Your task to perform on an android device: What is the capital of Germany? Image 0: 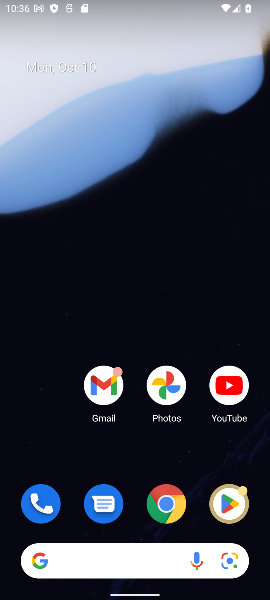
Step 0: click (165, 504)
Your task to perform on an android device: What is the capital of Germany? Image 1: 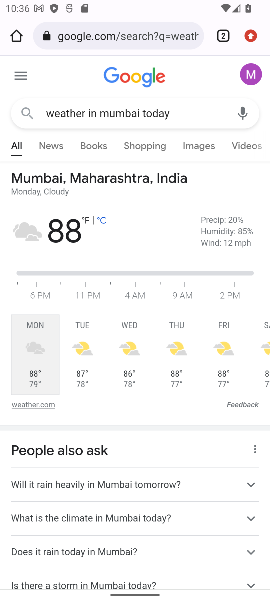
Step 1: click (123, 23)
Your task to perform on an android device: What is the capital of Germany? Image 2: 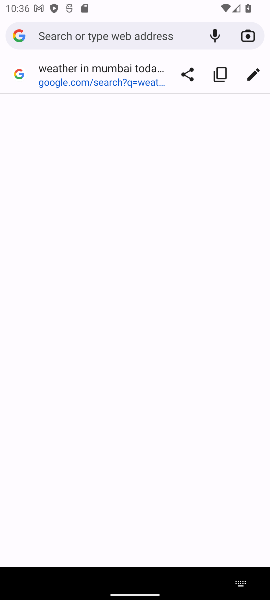
Step 2: type "capital of germany?["
Your task to perform on an android device: What is the capital of Germany? Image 3: 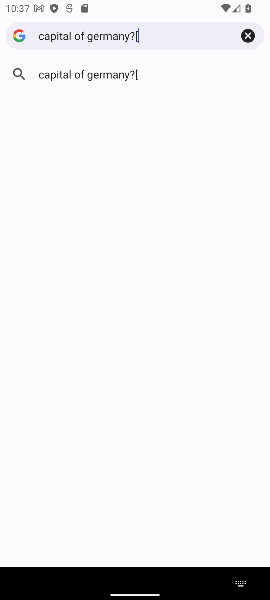
Step 3: click (64, 66)
Your task to perform on an android device: What is the capital of Germany? Image 4: 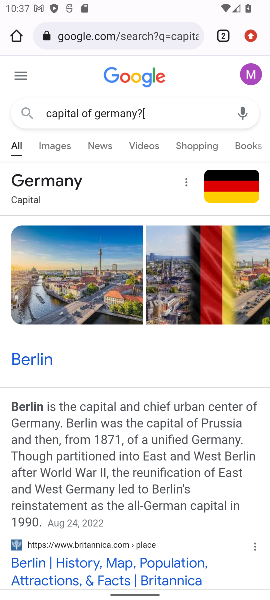
Step 4: task complete